Your task to perform on an android device: check the backup settings in the google photos Image 0: 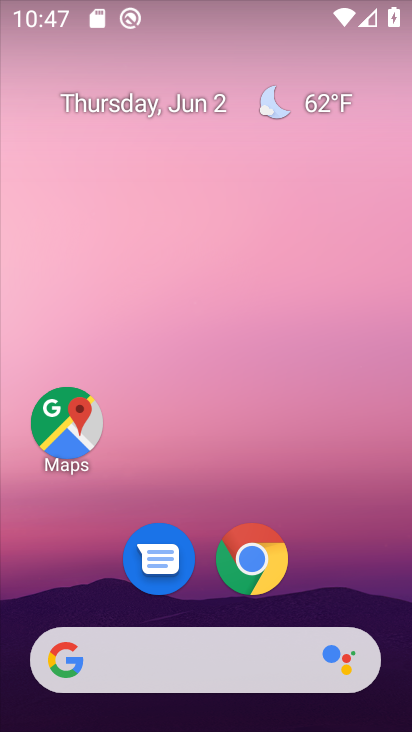
Step 0: drag from (163, 630) to (225, 211)
Your task to perform on an android device: check the backup settings in the google photos Image 1: 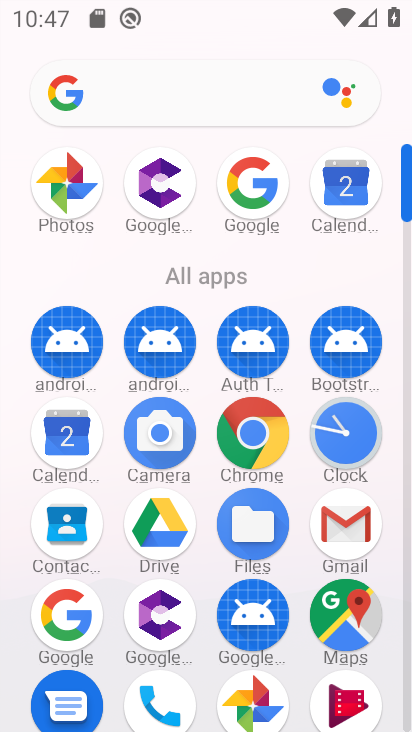
Step 1: click (59, 175)
Your task to perform on an android device: check the backup settings in the google photos Image 2: 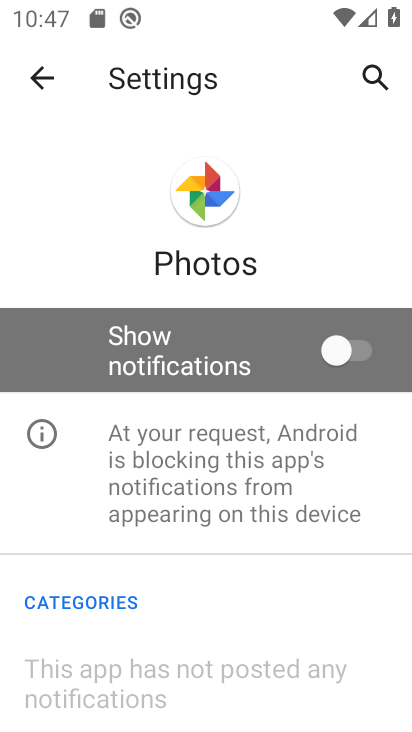
Step 2: click (53, 73)
Your task to perform on an android device: check the backup settings in the google photos Image 3: 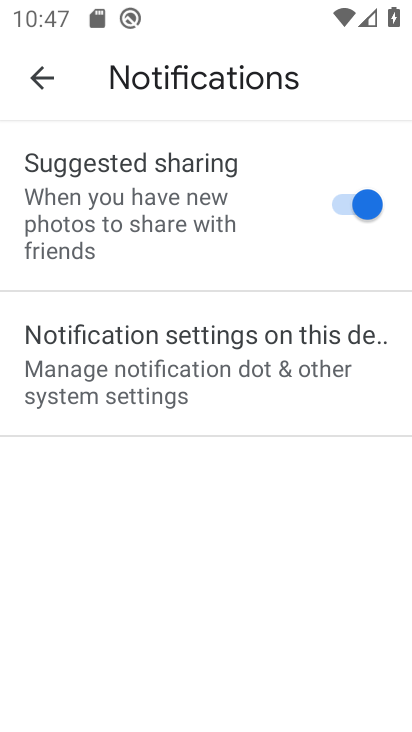
Step 3: click (53, 73)
Your task to perform on an android device: check the backup settings in the google photos Image 4: 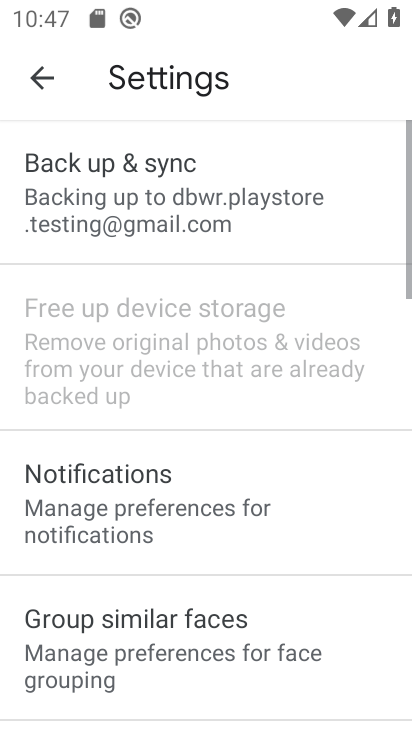
Step 4: click (170, 203)
Your task to perform on an android device: check the backup settings in the google photos Image 5: 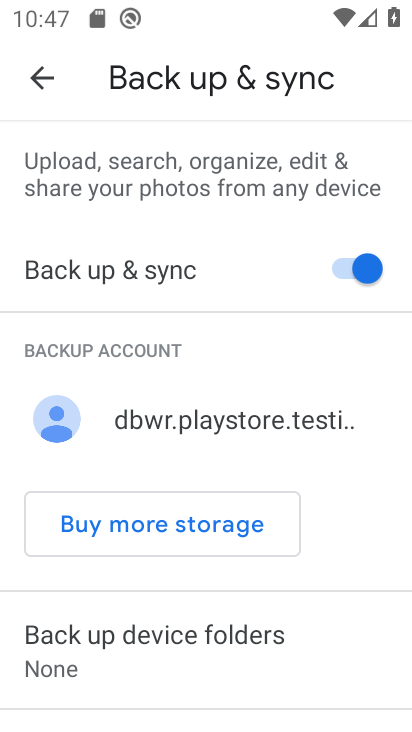
Step 5: task complete